Your task to perform on an android device: show emergency info Image 0: 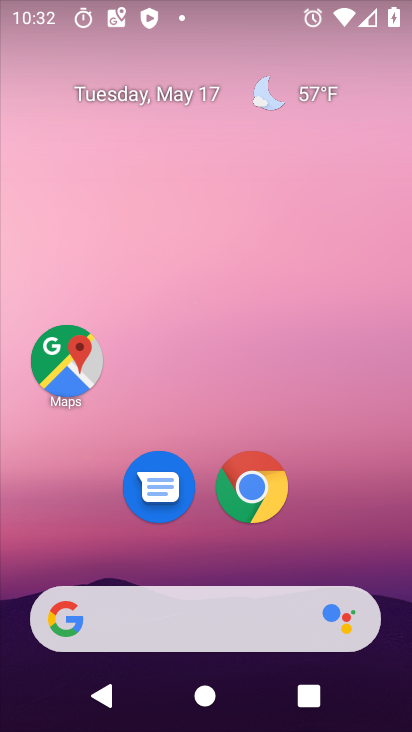
Step 0: drag from (203, 729) to (204, 89)
Your task to perform on an android device: show emergency info Image 1: 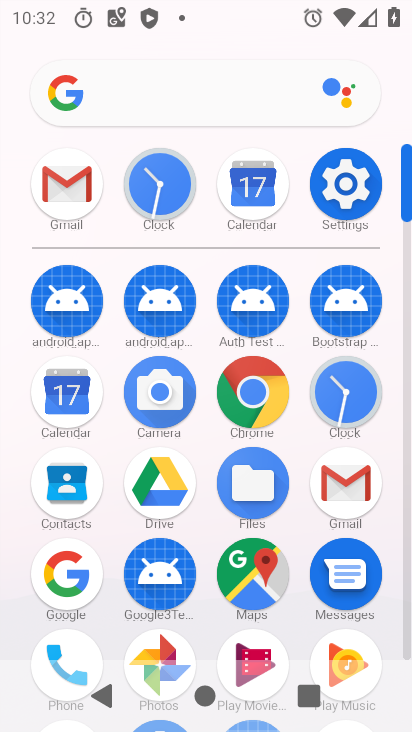
Step 1: click (343, 186)
Your task to perform on an android device: show emergency info Image 2: 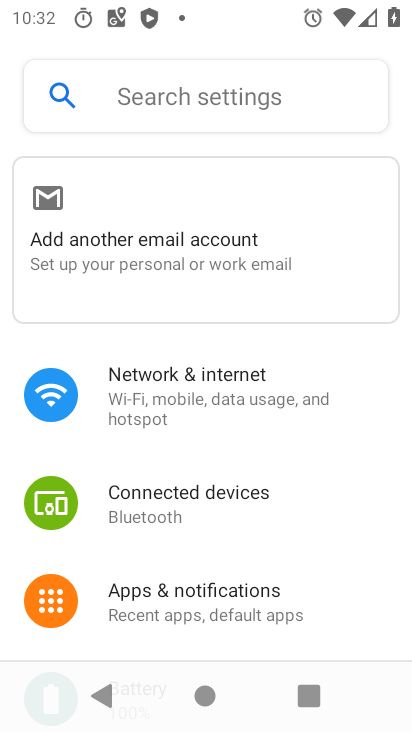
Step 2: drag from (230, 630) to (260, 316)
Your task to perform on an android device: show emergency info Image 3: 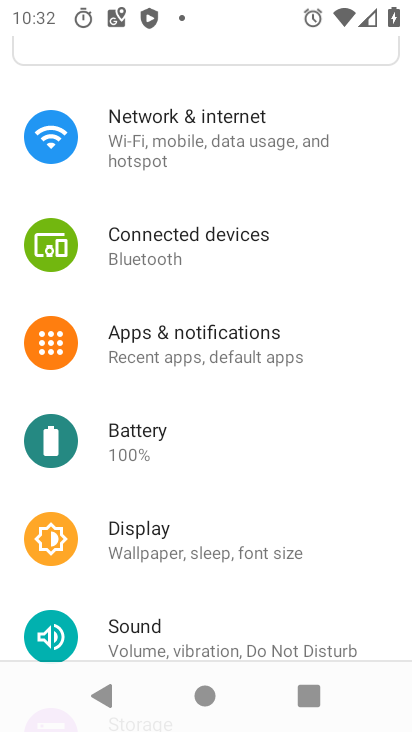
Step 3: drag from (231, 615) to (231, 182)
Your task to perform on an android device: show emergency info Image 4: 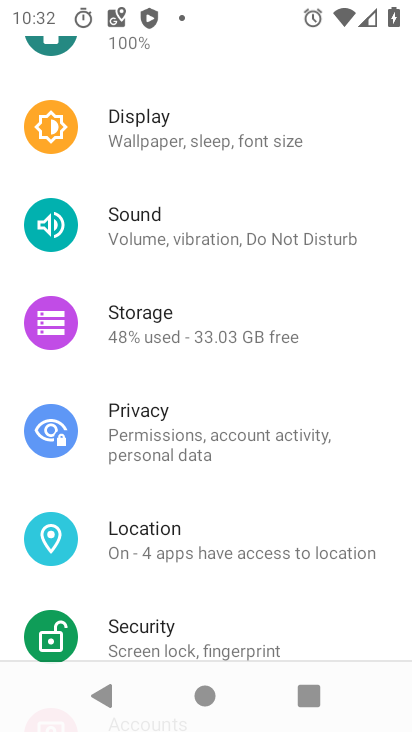
Step 4: drag from (214, 636) to (214, 224)
Your task to perform on an android device: show emergency info Image 5: 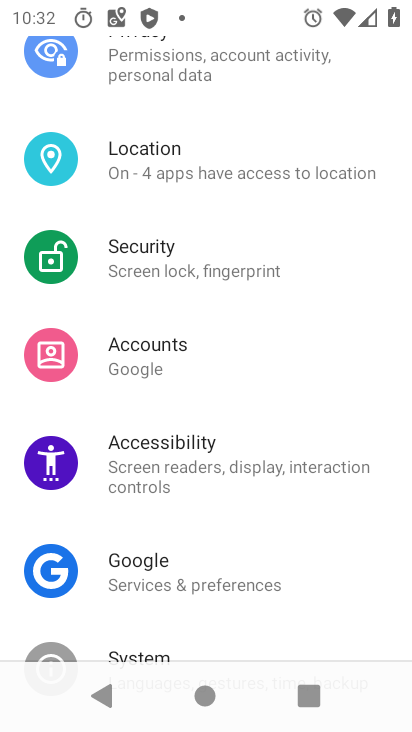
Step 5: drag from (197, 645) to (206, 214)
Your task to perform on an android device: show emergency info Image 6: 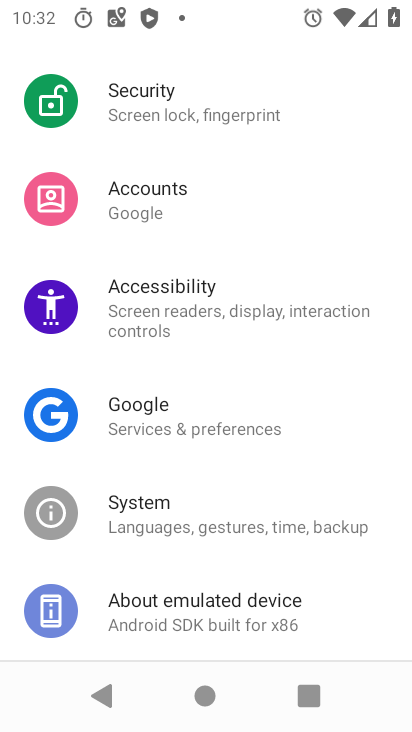
Step 6: drag from (217, 623) to (227, 186)
Your task to perform on an android device: show emergency info Image 7: 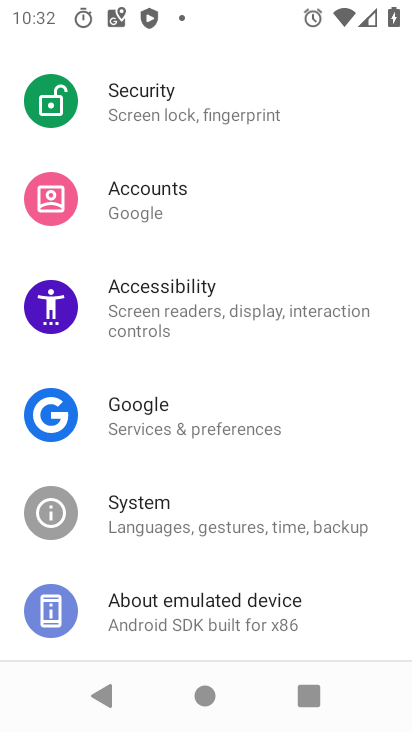
Step 7: click (201, 611)
Your task to perform on an android device: show emergency info Image 8: 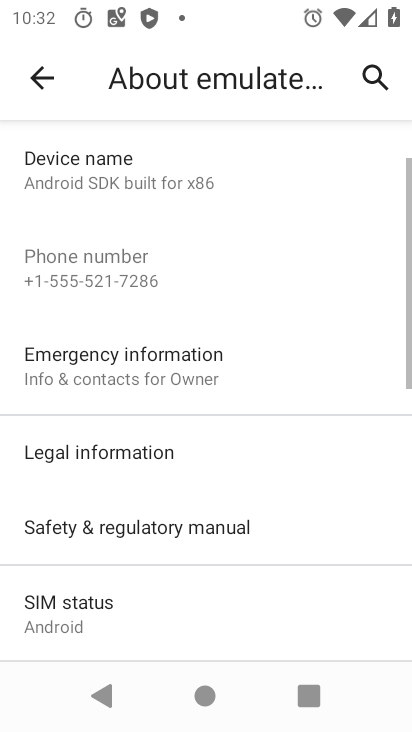
Step 8: click (149, 361)
Your task to perform on an android device: show emergency info Image 9: 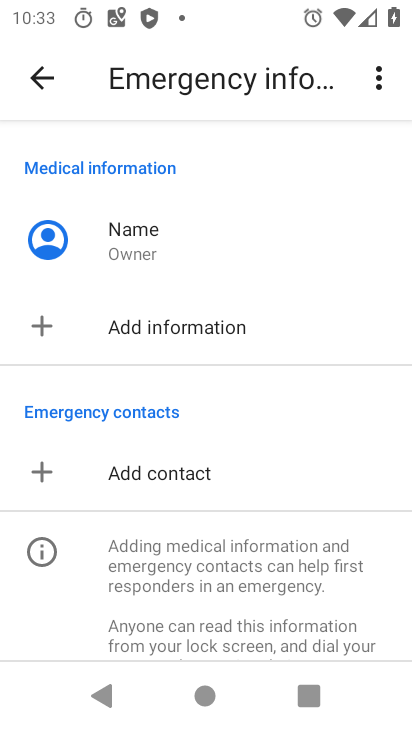
Step 9: task complete